Your task to perform on an android device: Go to battery settings Image 0: 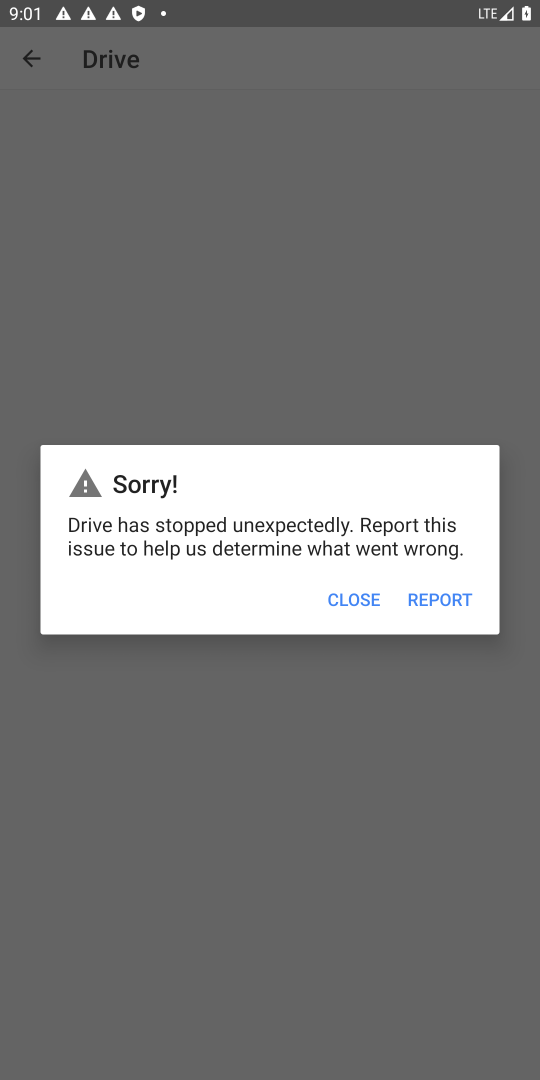
Step 0: press home button
Your task to perform on an android device: Go to battery settings Image 1: 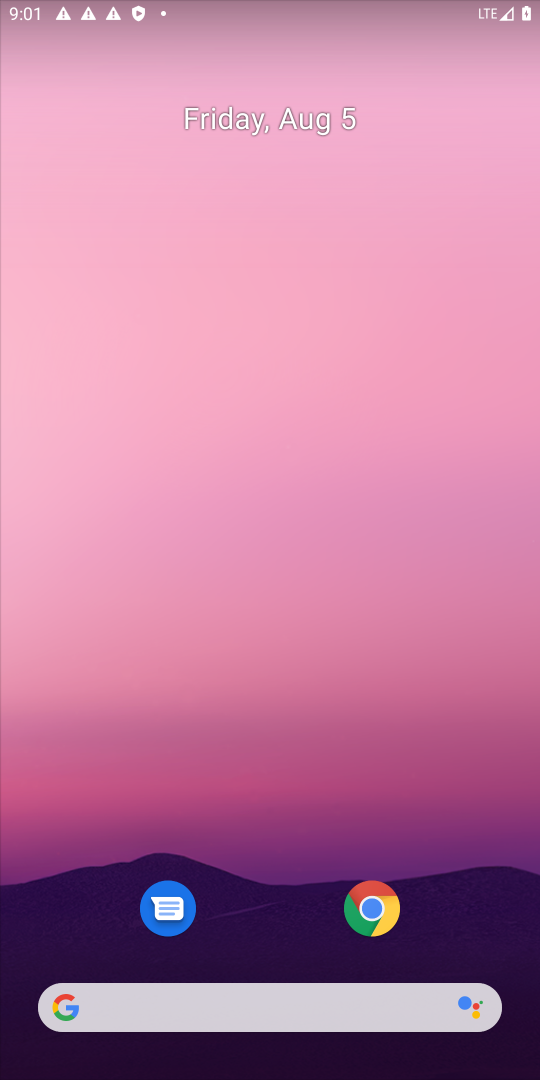
Step 1: drag from (262, 952) to (29, 210)
Your task to perform on an android device: Go to battery settings Image 2: 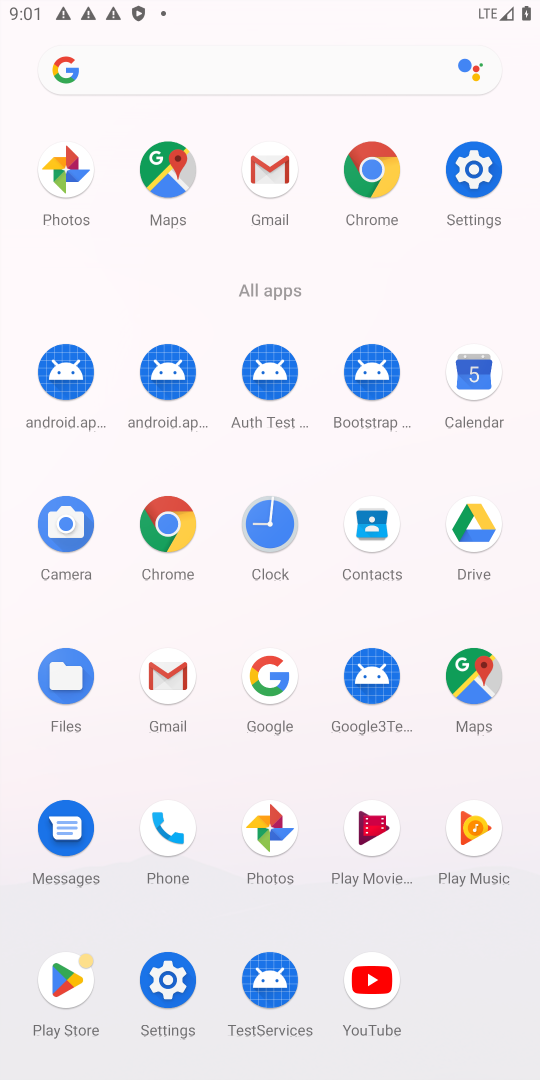
Step 2: click (466, 190)
Your task to perform on an android device: Go to battery settings Image 3: 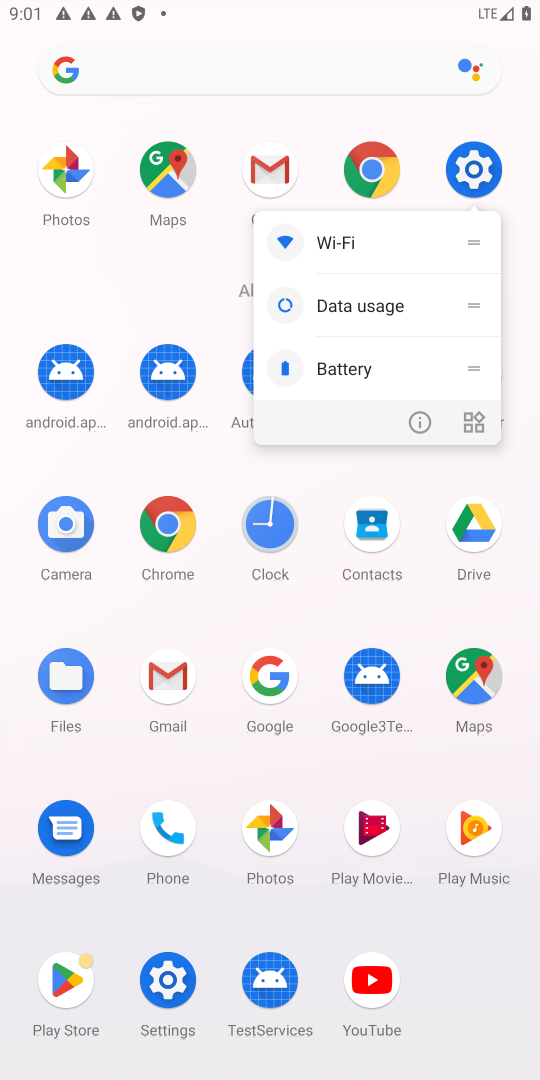
Step 3: click (466, 161)
Your task to perform on an android device: Go to battery settings Image 4: 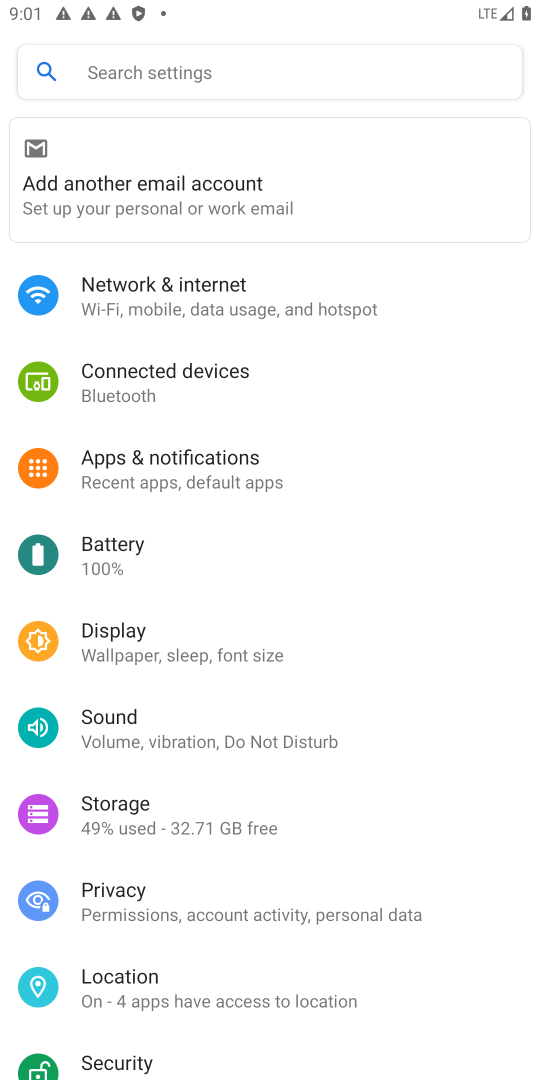
Step 4: click (84, 550)
Your task to perform on an android device: Go to battery settings Image 5: 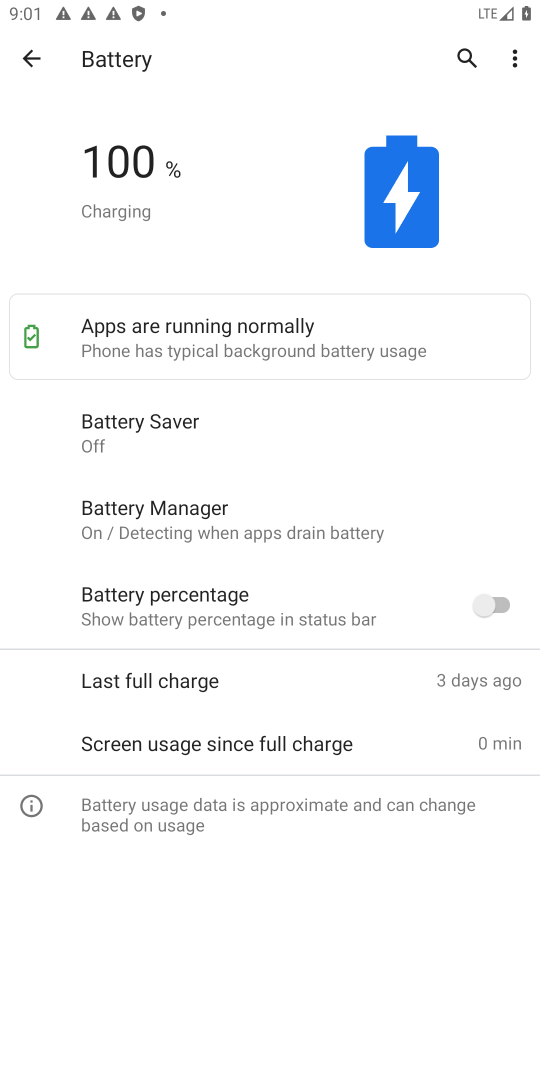
Step 5: task complete